Your task to perform on an android device: See recent photos Image 0: 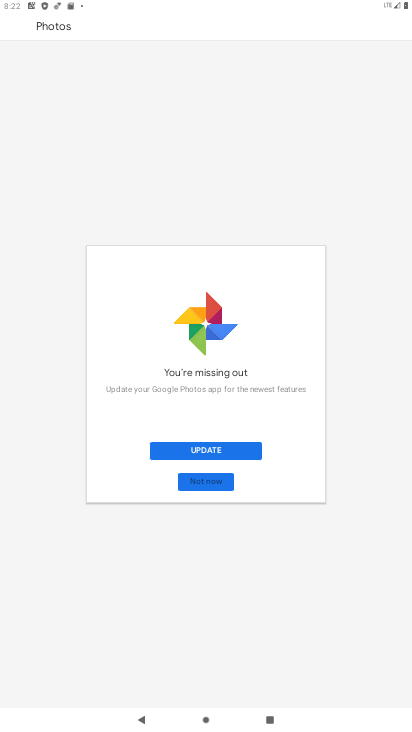
Step 0: click (217, 481)
Your task to perform on an android device: See recent photos Image 1: 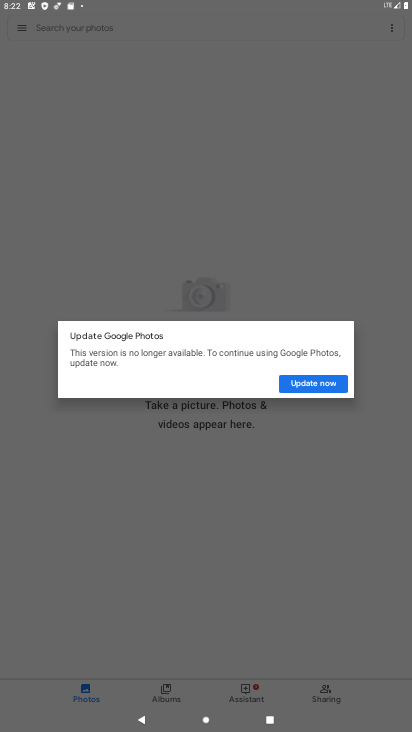
Step 1: click (314, 387)
Your task to perform on an android device: See recent photos Image 2: 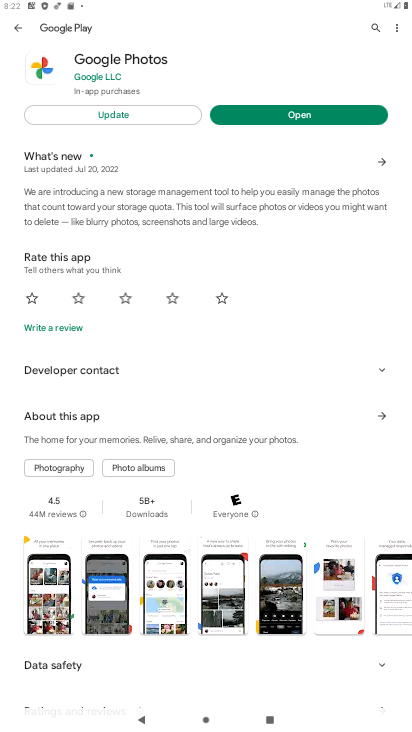
Step 2: click (328, 108)
Your task to perform on an android device: See recent photos Image 3: 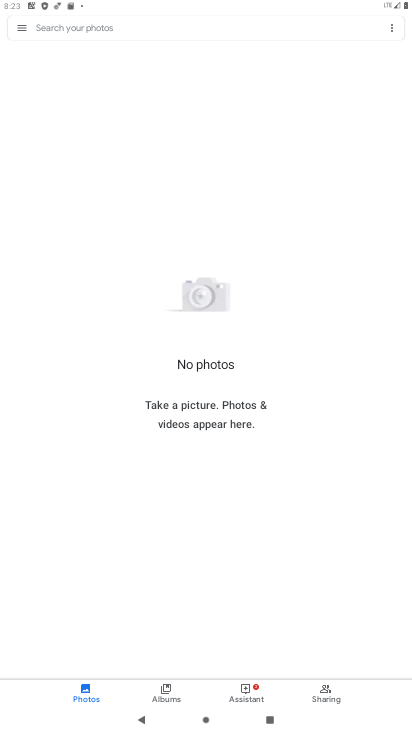
Step 3: task complete